Your task to perform on an android device: Go to battery settings Image 0: 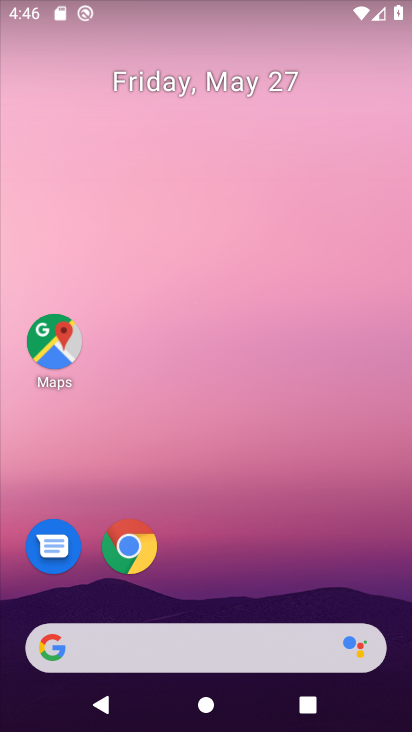
Step 0: drag from (278, 534) to (250, 23)
Your task to perform on an android device: Go to battery settings Image 1: 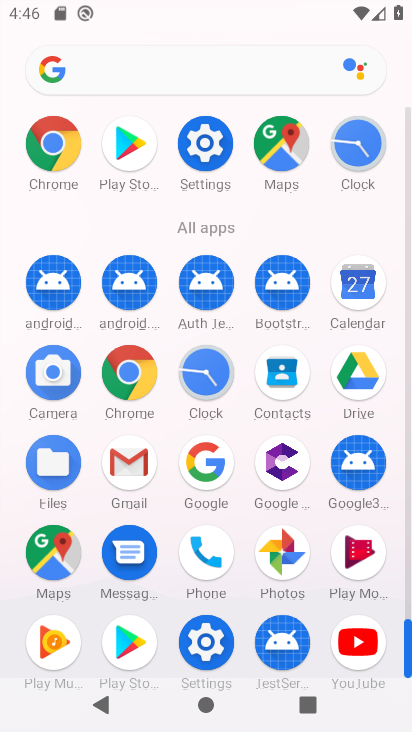
Step 1: drag from (7, 589) to (21, 251)
Your task to perform on an android device: Go to battery settings Image 2: 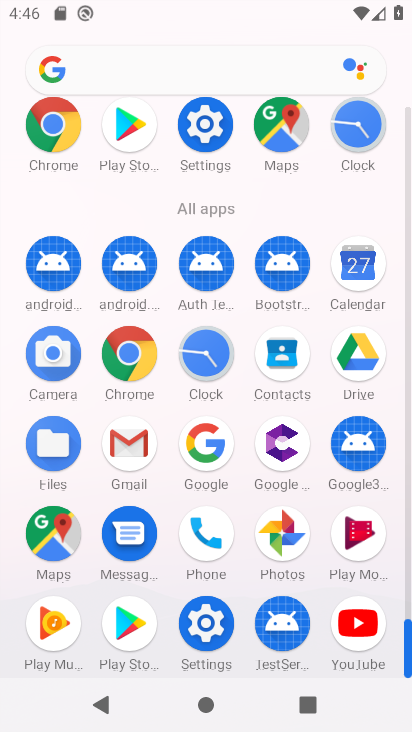
Step 2: click (205, 624)
Your task to perform on an android device: Go to battery settings Image 3: 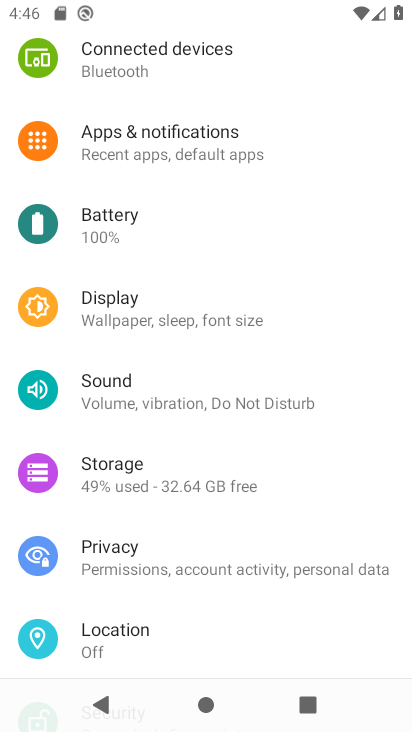
Step 3: drag from (194, 514) to (236, 34)
Your task to perform on an android device: Go to battery settings Image 4: 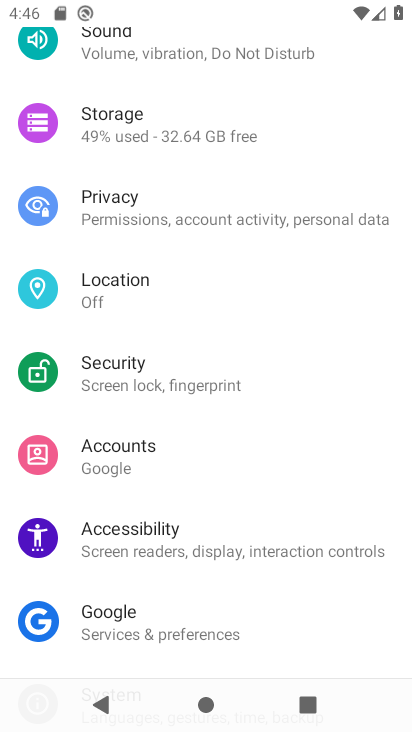
Step 4: drag from (240, 138) to (264, 404)
Your task to perform on an android device: Go to battery settings Image 5: 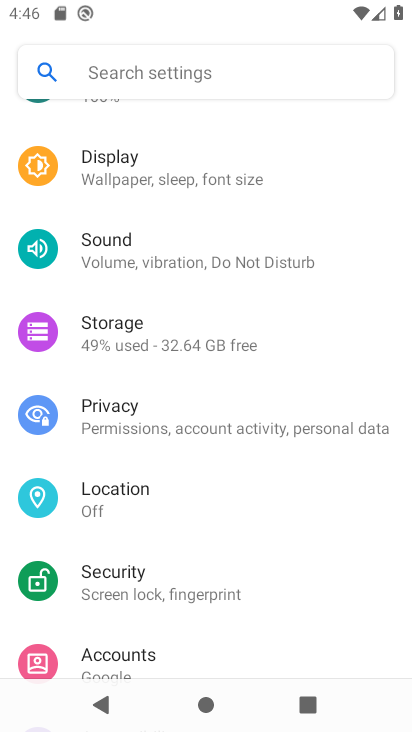
Step 5: drag from (216, 222) to (216, 528)
Your task to perform on an android device: Go to battery settings Image 6: 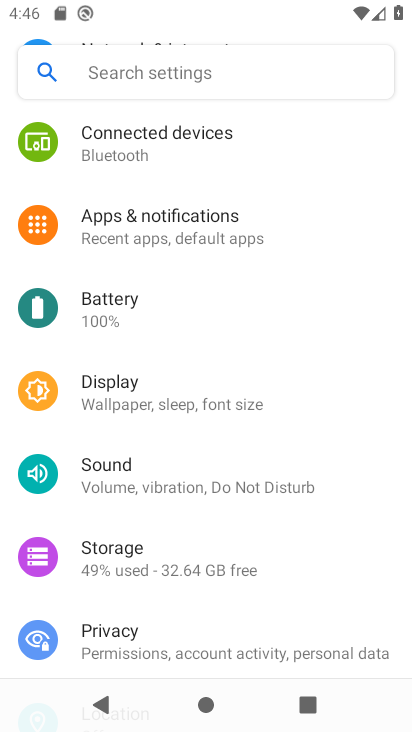
Step 6: click (151, 294)
Your task to perform on an android device: Go to battery settings Image 7: 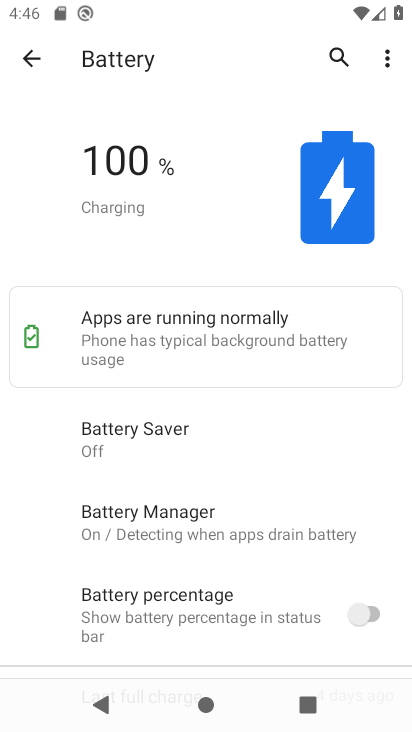
Step 7: task complete